Your task to perform on an android device: Open Chrome and go to settings Image 0: 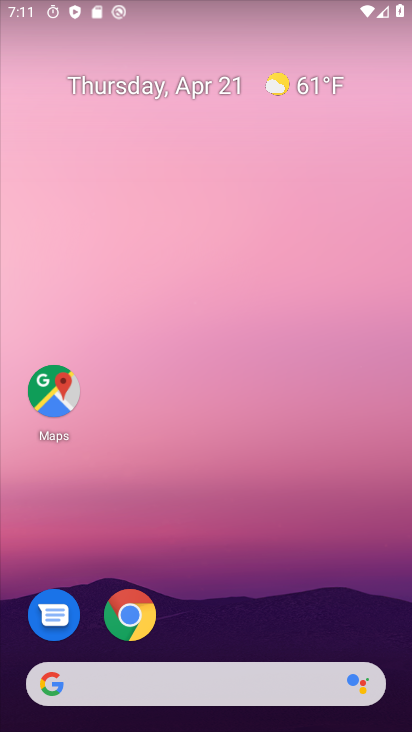
Step 0: drag from (197, 630) to (185, 146)
Your task to perform on an android device: Open Chrome and go to settings Image 1: 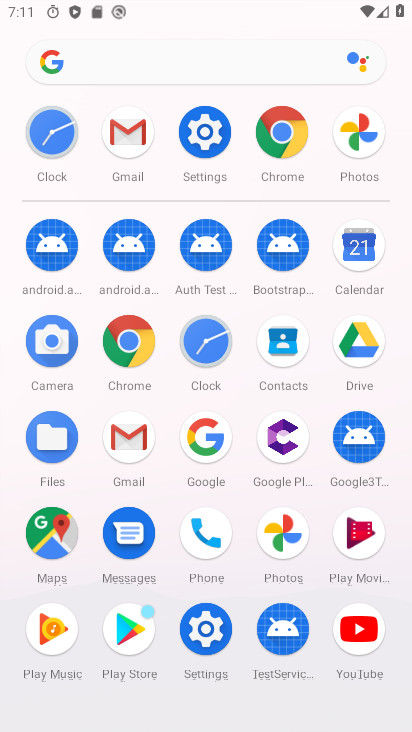
Step 1: click (117, 336)
Your task to perform on an android device: Open Chrome and go to settings Image 2: 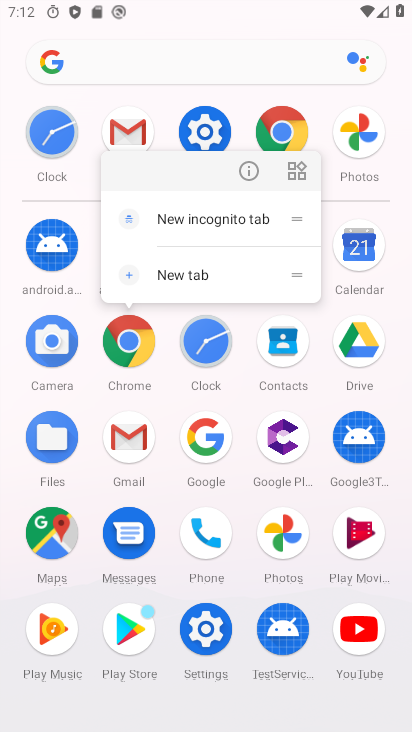
Step 2: click (242, 175)
Your task to perform on an android device: Open Chrome and go to settings Image 3: 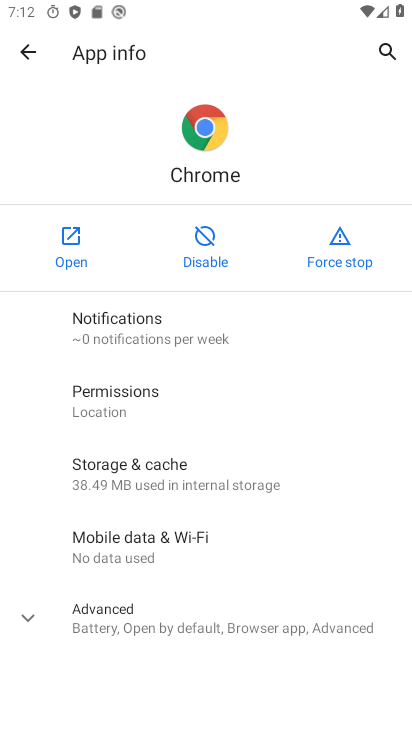
Step 3: click (72, 248)
Your task to perform on an android device: Open Chrome and go to settings Image 4: 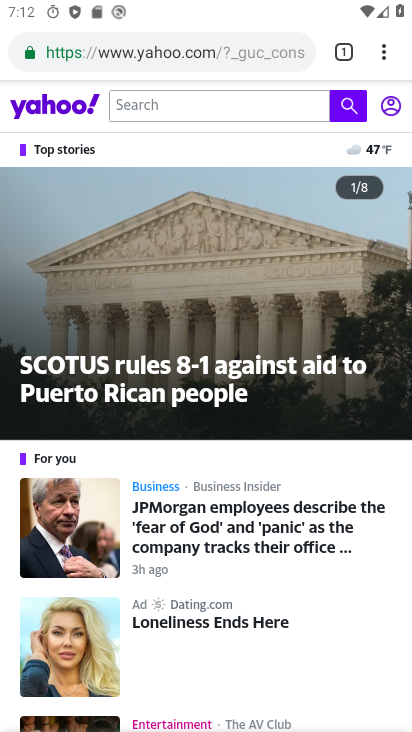
Step 4: task complete